Your task to perform on an android device: check the backup settings in the google photos Image 0: 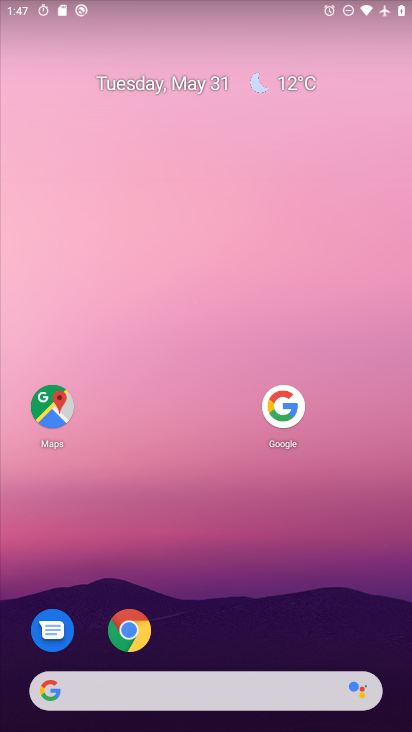
Step 0: press home button
Your task to perform on an android device: check the backup settings in the google photos Image 1: 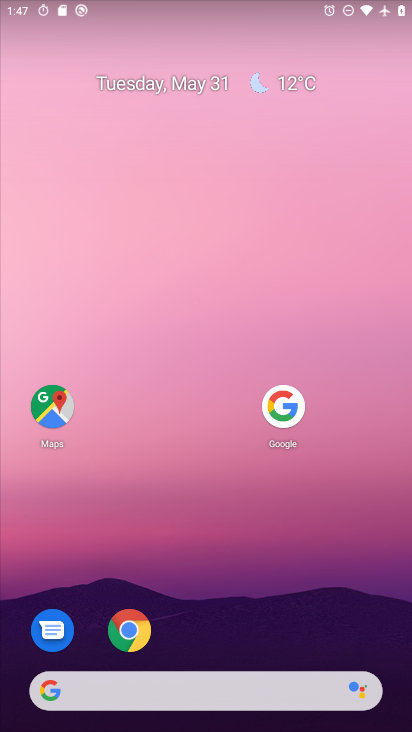
Step 1: drag from (237, 550) to (348, 130)
Your task to perform on an android device: check the backup settings in the google photos Image 2: 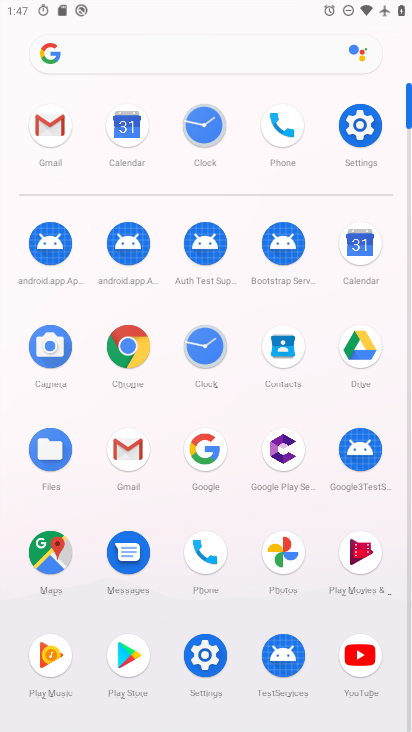
Step 2: click (284, 559)
Your task to perform on an android device: check the backup settings in the google photos Image 3: 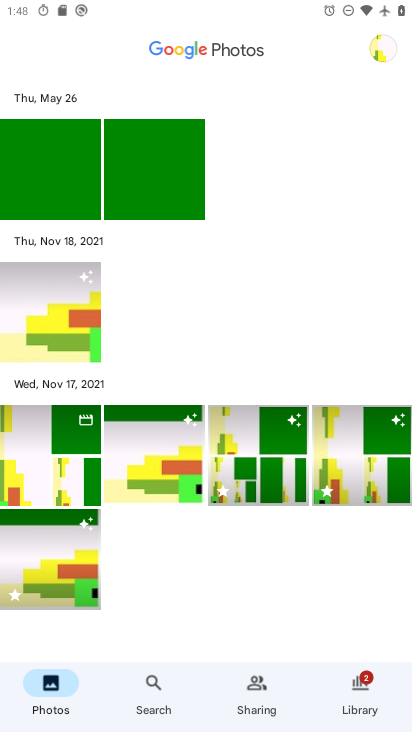
Step 3: click (380, 55)
Your task to perform on an android device: check the backup settings in the google photos Image 4: 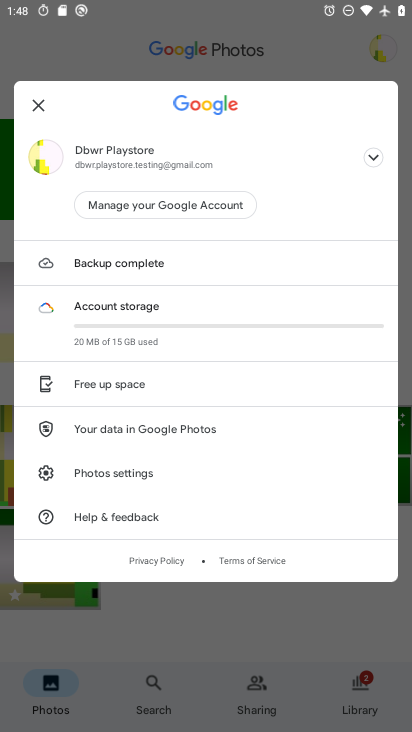
Step 4: click (124, 468)
Your task to perform on an android device: check the backup settings in the google photos Image 5: 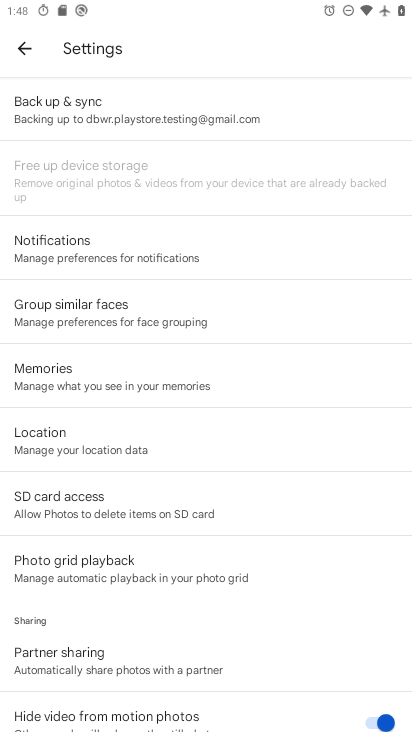
Step 5: click (144, 109)
Your task to perform on an android device: check the backup settings in the google photos Image 6: 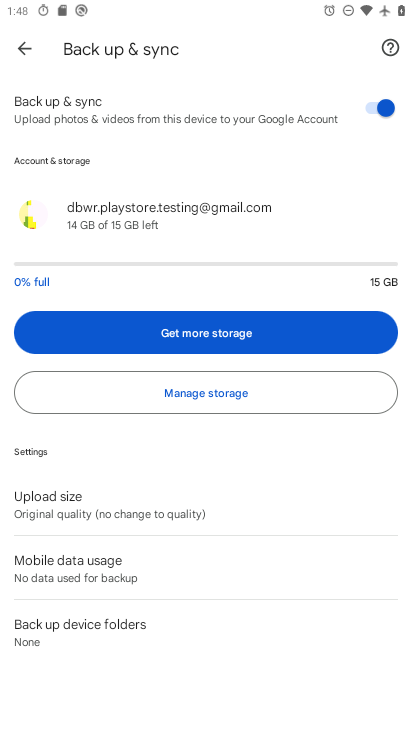
Step 6: task complete